Your task to perform on an android device: Open Yahoo.com Image 0: 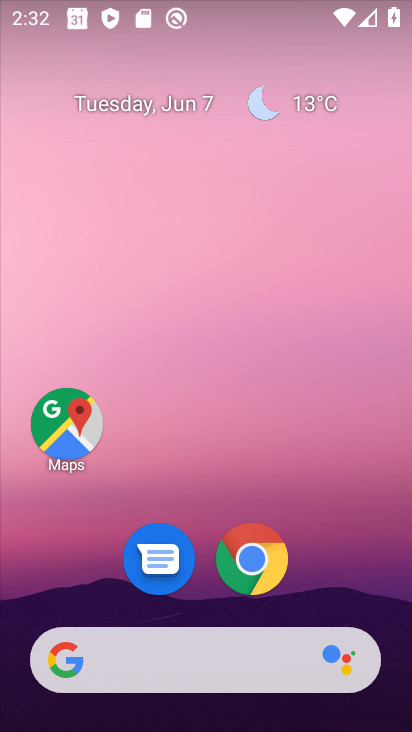
Step 0: click (254, 559)
Your task to perform on an android device: Open Yahoo.com Image 1: 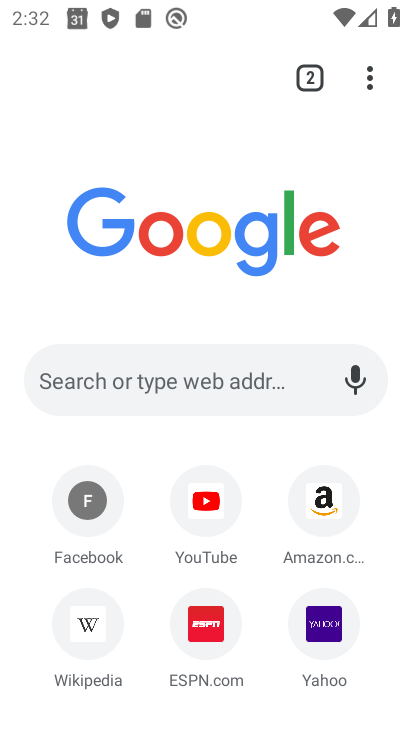
Step 1: click (326, 629)
Your task to perform on an android device: Open Yahoo.com Image 2: 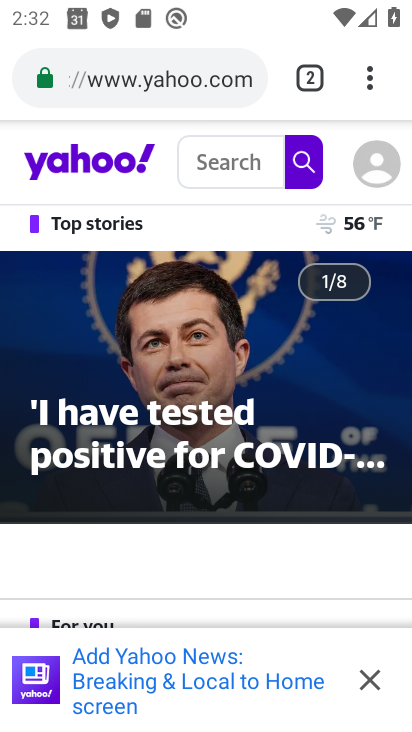
Step 2: task complete